Your task to perform on an android device: visit the assistant section in the google photos Image 0: 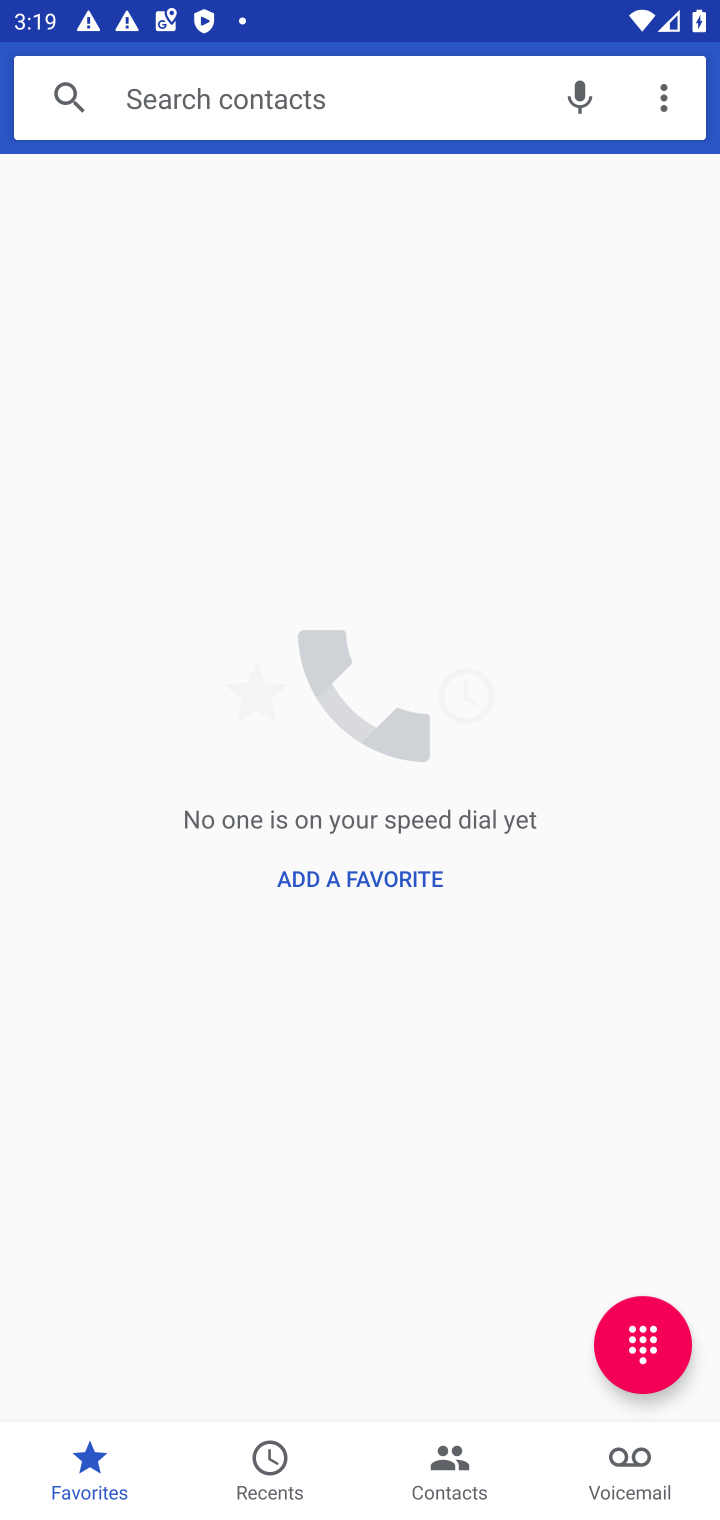
Step 0: press back button
Your task to perform on an android device: visit the assistant section in the google photos Image 1: 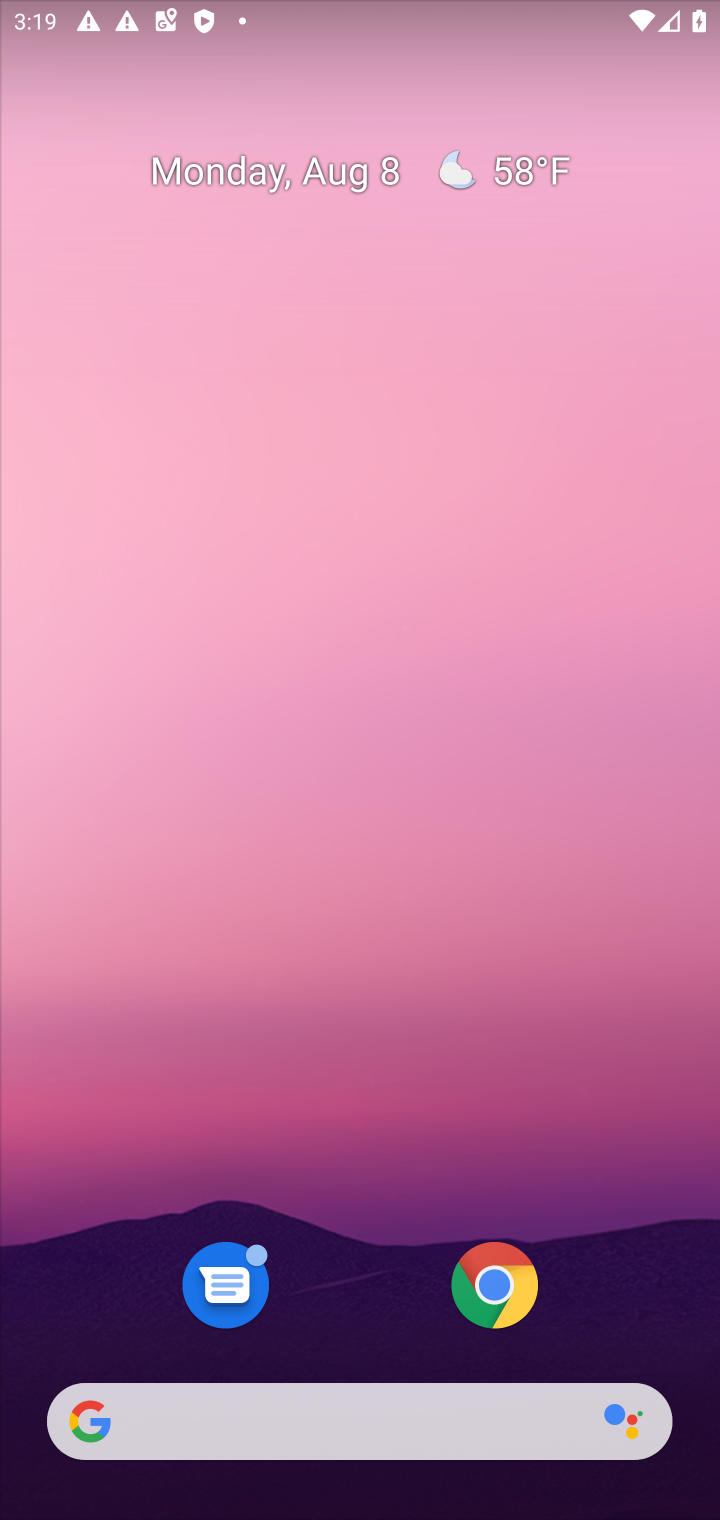
Step 1: press back button
Your task to perform on an android device: visit the assistant section in the google photos Image 2: 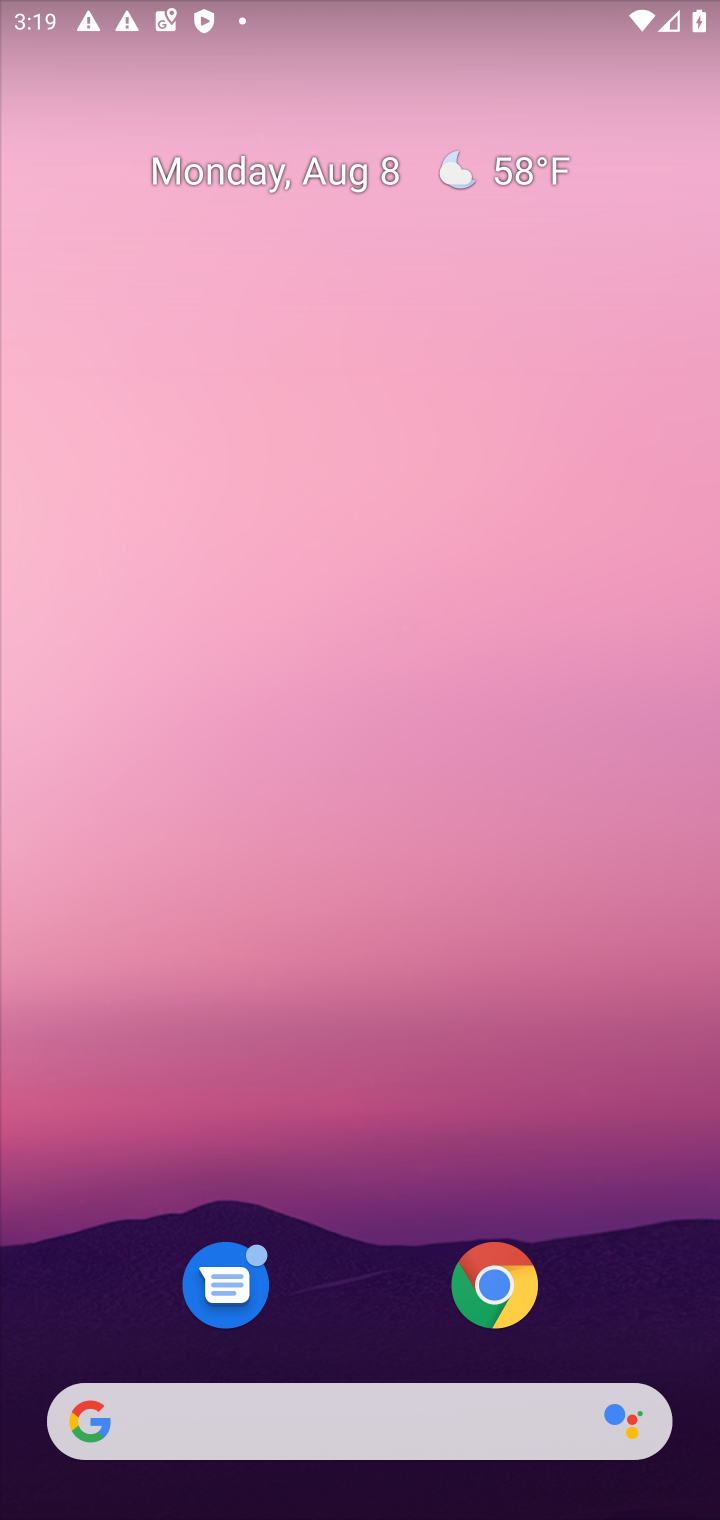
Step 2: drag from (373, 1283) to (542, 135)
Your task to perform on an android device: visit the assistant section in the google photos Image 3: 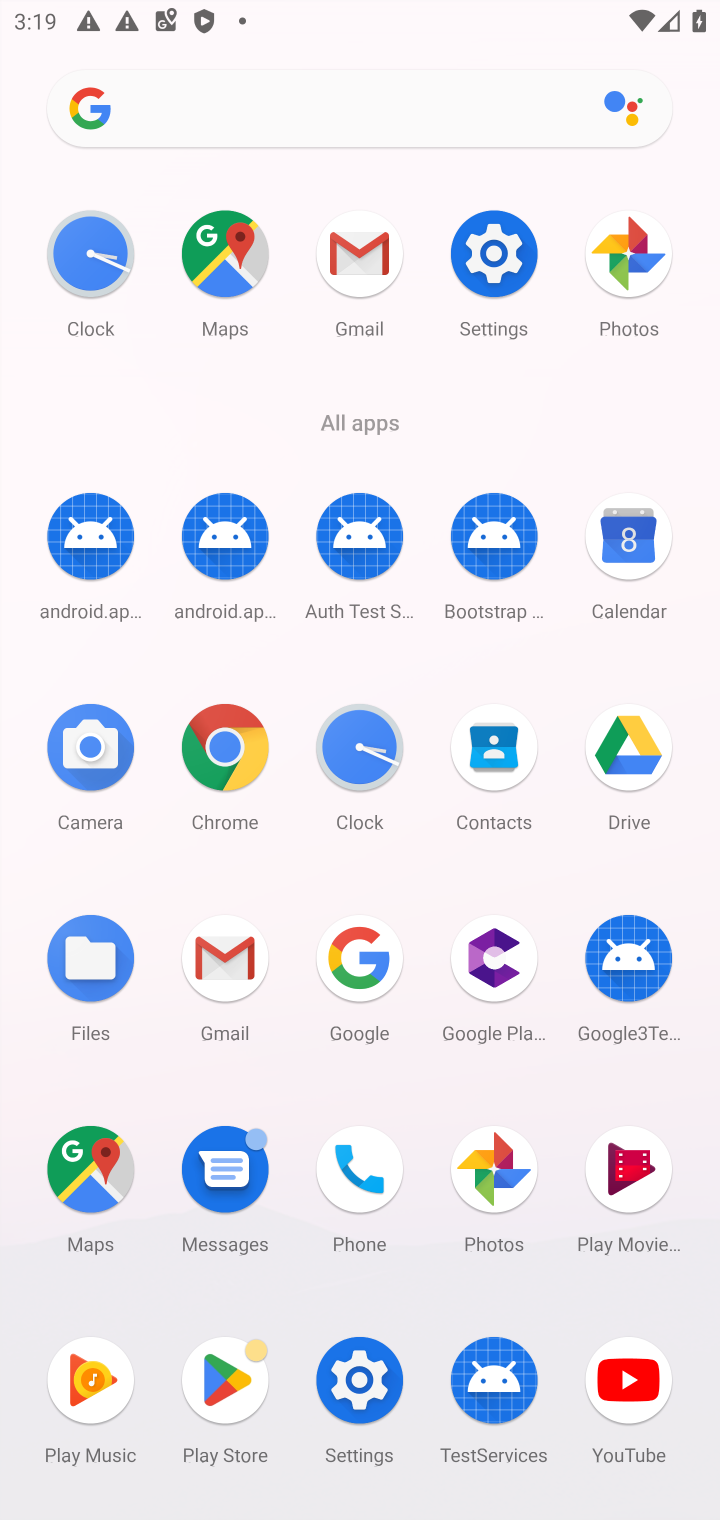
Step 3: click (503, 1174)
Your task to perform on an android device: visit the assistant section in the google photos Image 4: 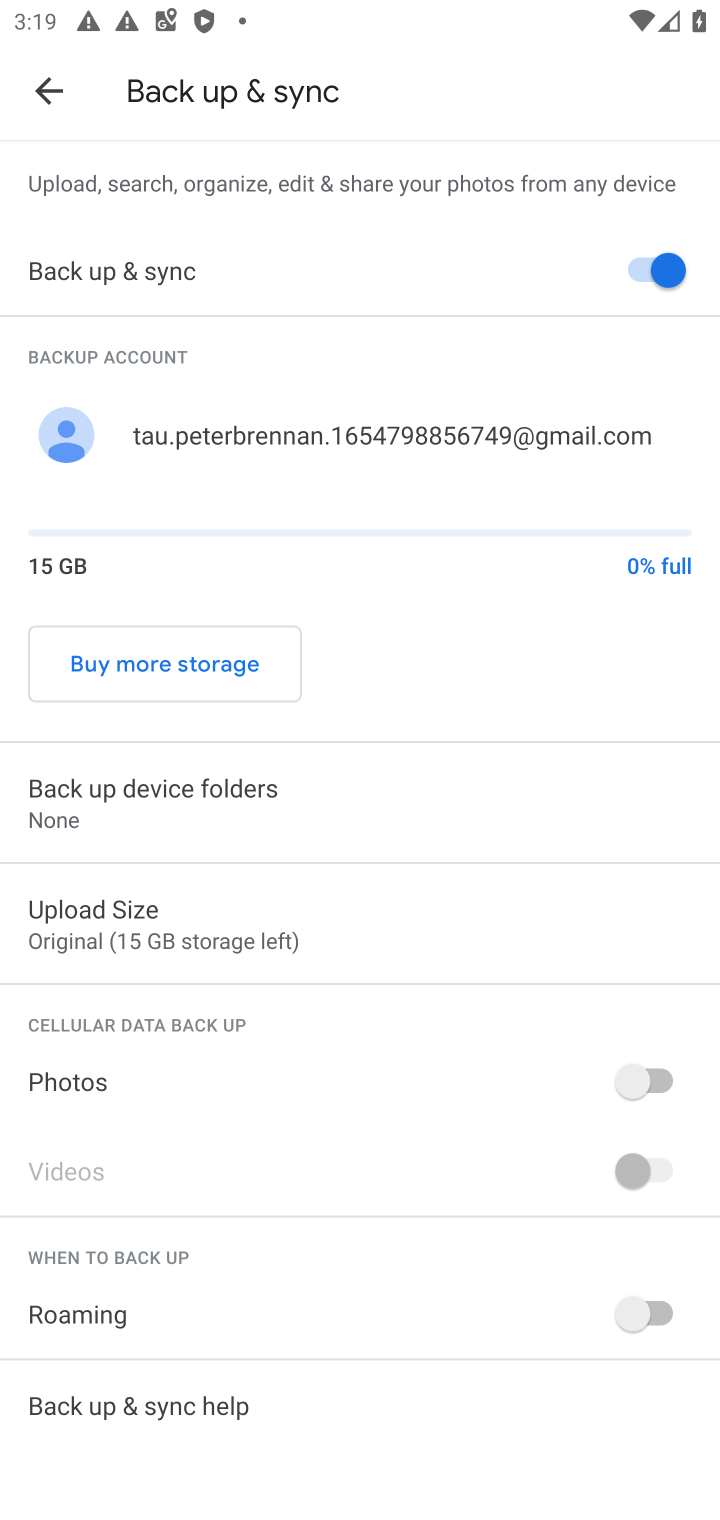
Step 4: click (44, 104)
Your task to perform on an android device: visit the assistant section in the google photos Image 5: 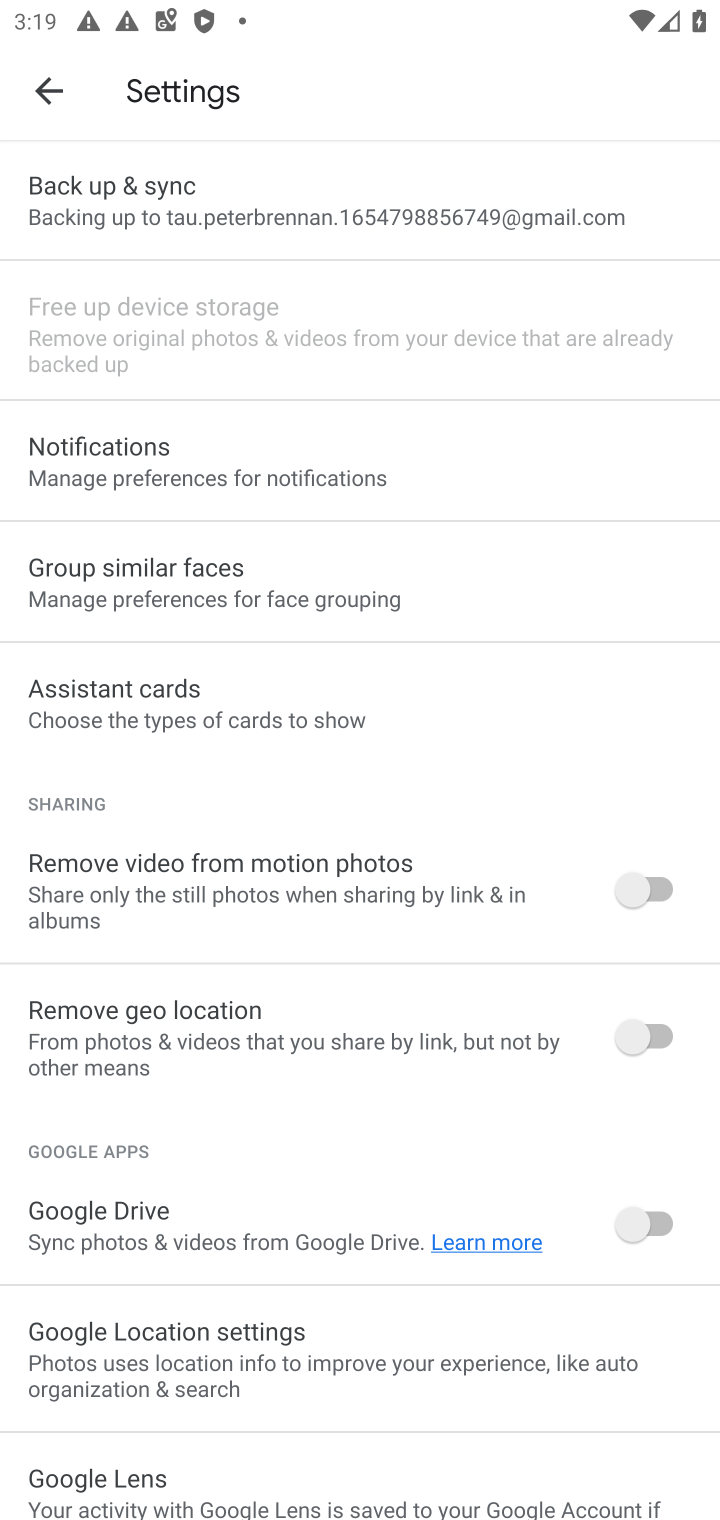
Step 5: click (39, 67)
Your task to perform on an android device: visit the assistant section in the google photos Image 6: 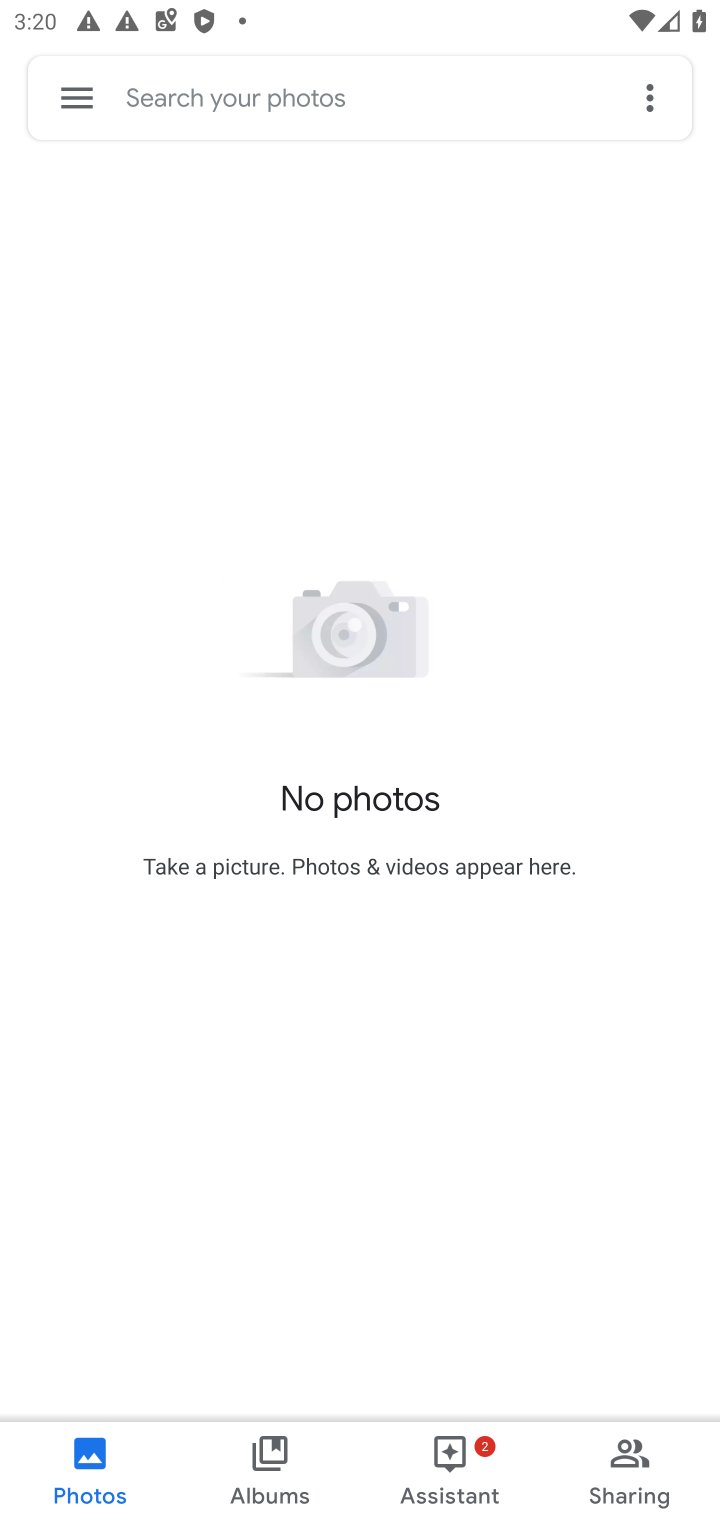
Step 6: click (428, 1448)
Your task to perform on an android device: visit the assistant section in the google photos Image 7: 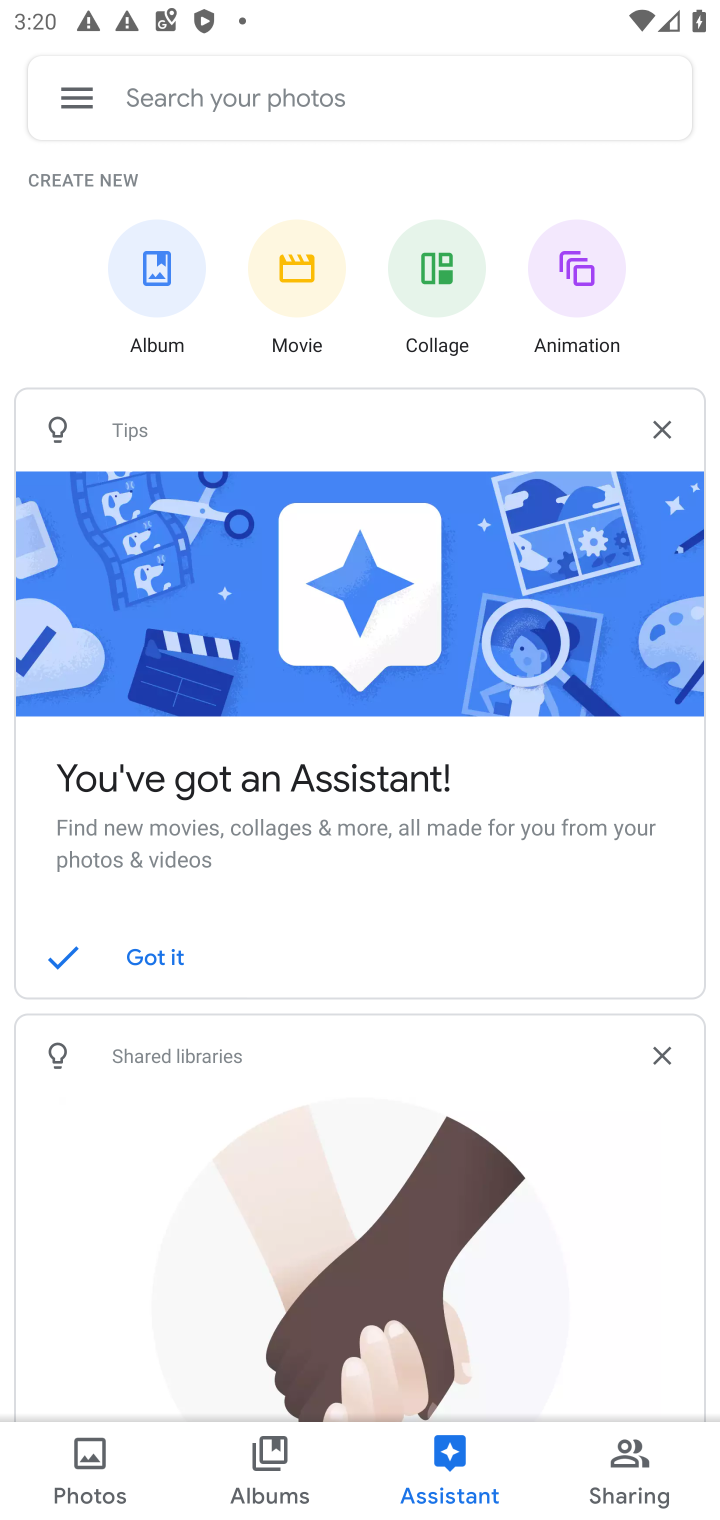
Step 7: task complete